Your task to perform on an android device: turn on improve location accuracy Image 0: 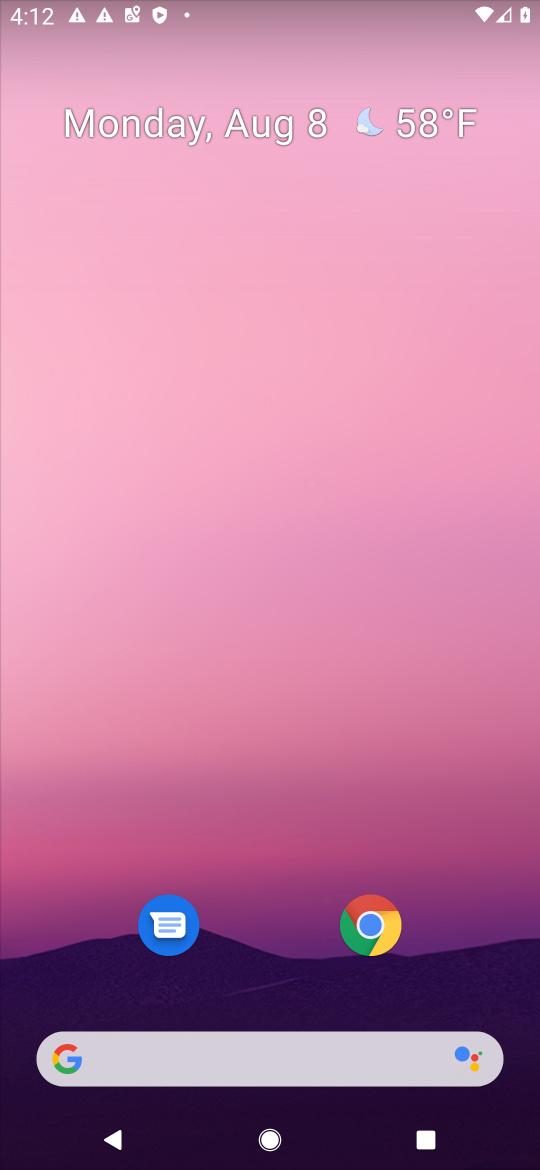
Step 0: drag from (259, 1004) to (241, 149)
Your task to perform on an android device: turn on improve location accuracy Image 1: 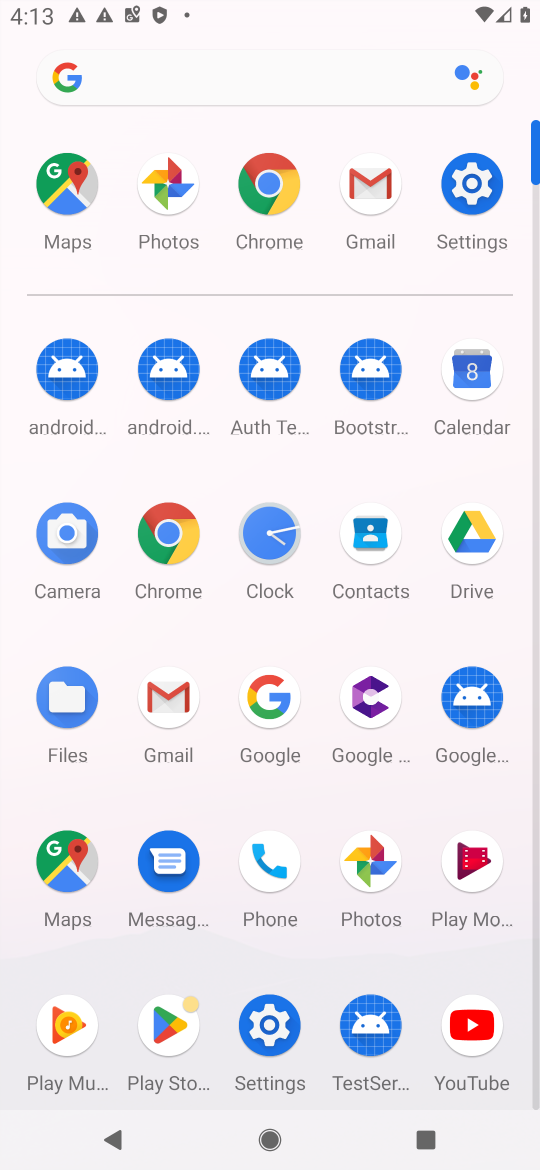
Step 1: click (465, 182)
Your task to perform on an android device: turn on improve location accuracy Image 2: 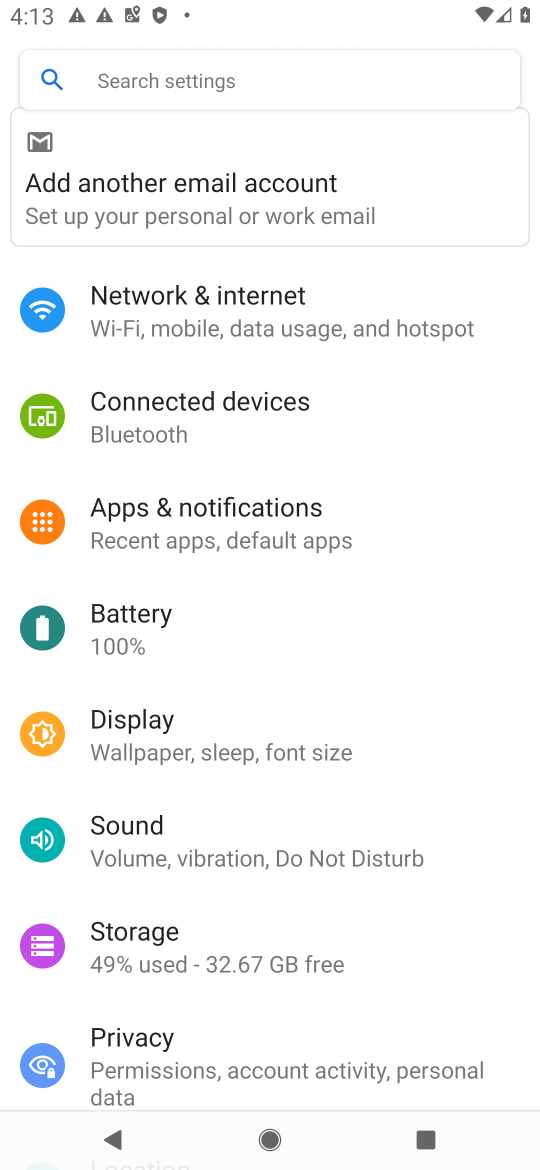
Step 2: drag from (144, 952) to (145, 458)
Your task to perform on an android device: turn on improve location accuracy Image 3: 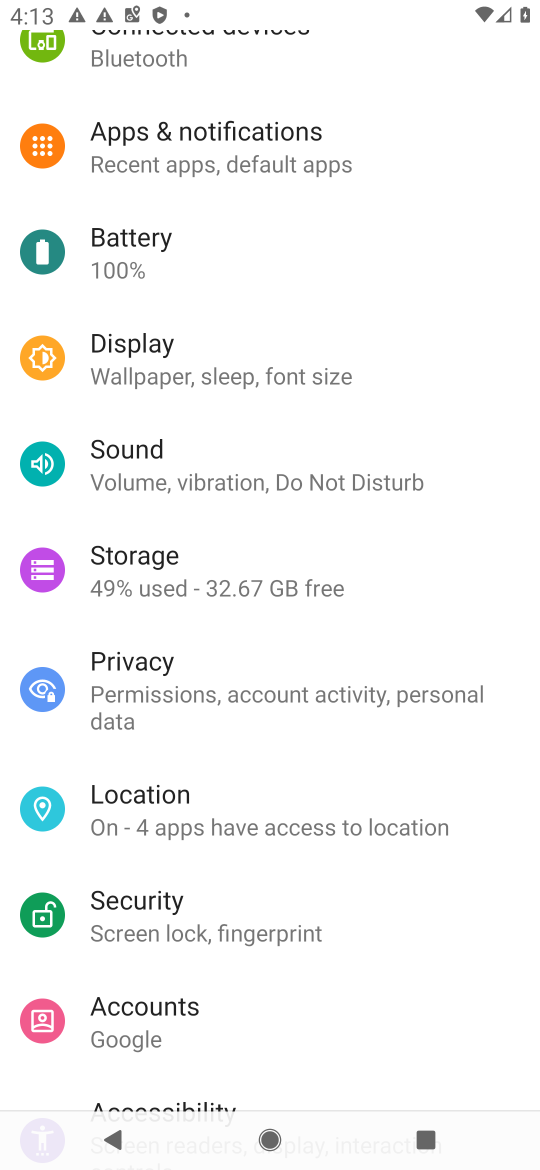
Step 3: click (140, 813)
Your task to perform on an android device: turn on improve location accuracy Image 4: 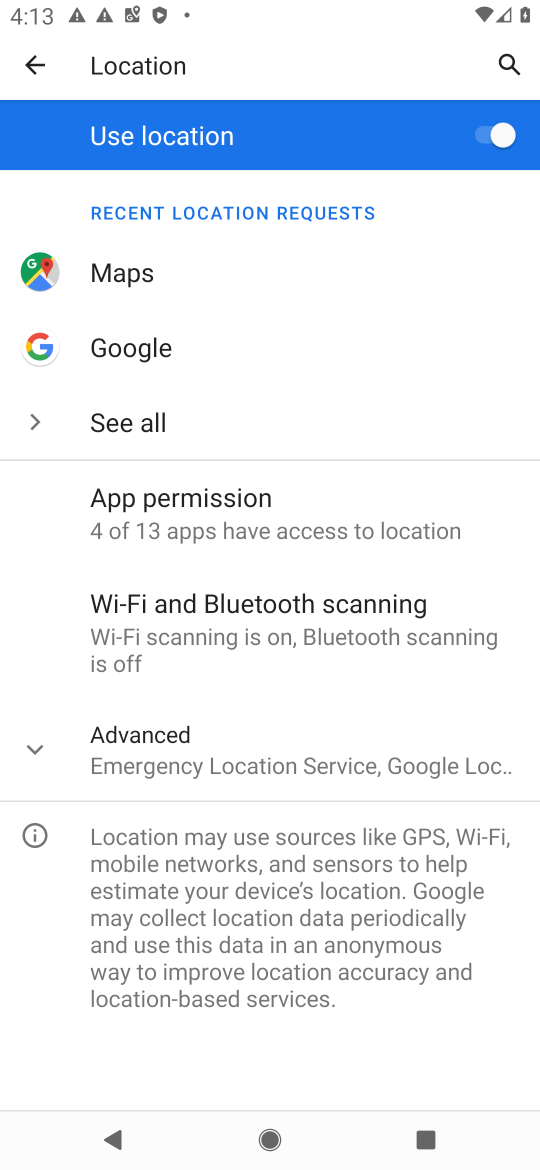
Step 4: click (149, 758)
Your task to perform on an android device: turn on improve location accuracy Image 5: 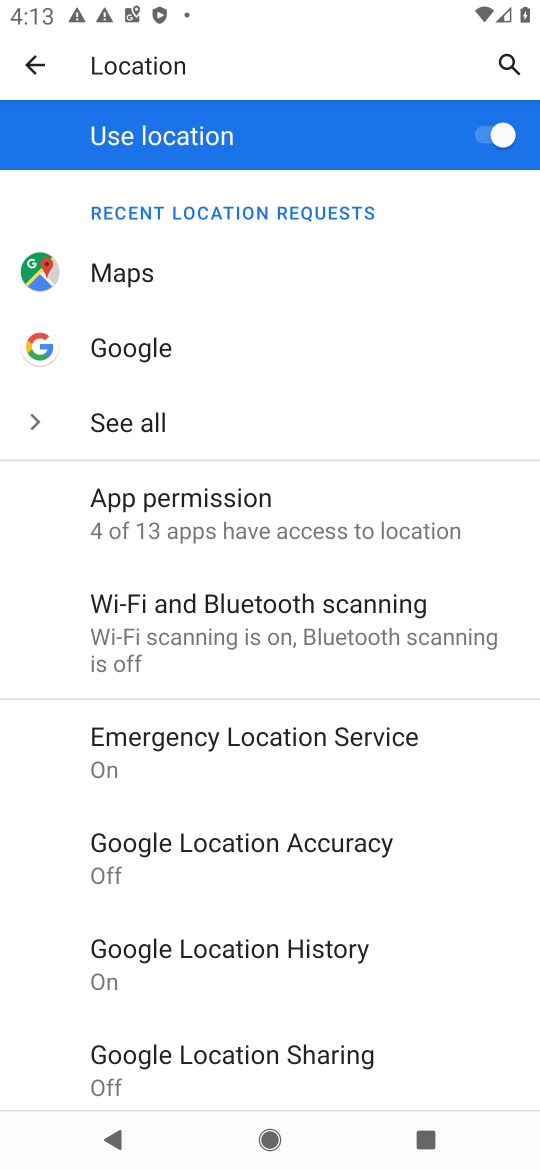
Step 5: click (328, 833)
Your task to perform on an android device: turn on improve location accuracy Image 6: 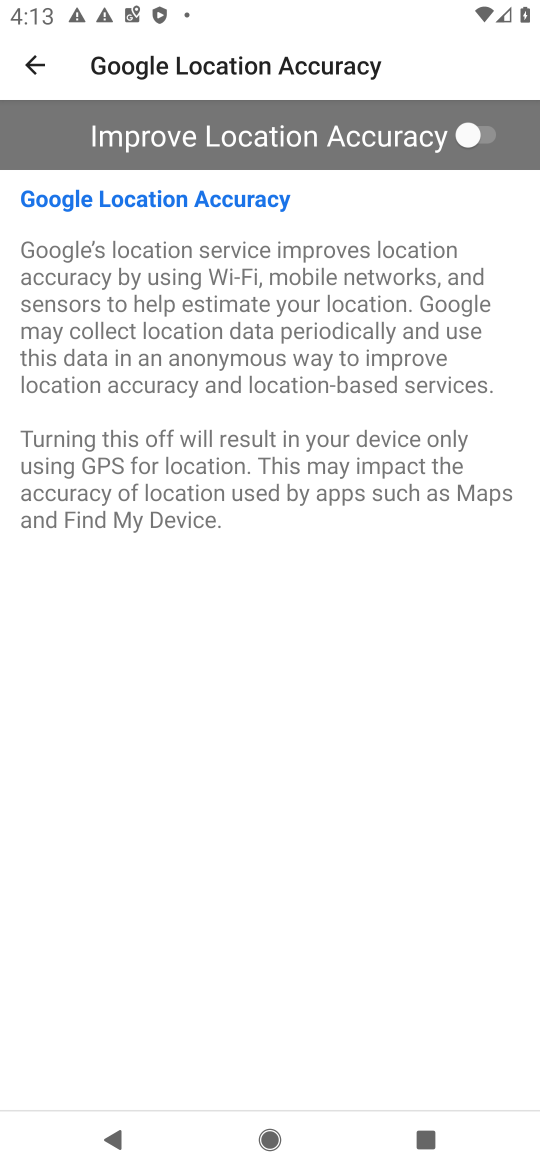
Step 6: click (490, 138)
Your task to perform on an android device: turn on improve location accuracy Image 7: 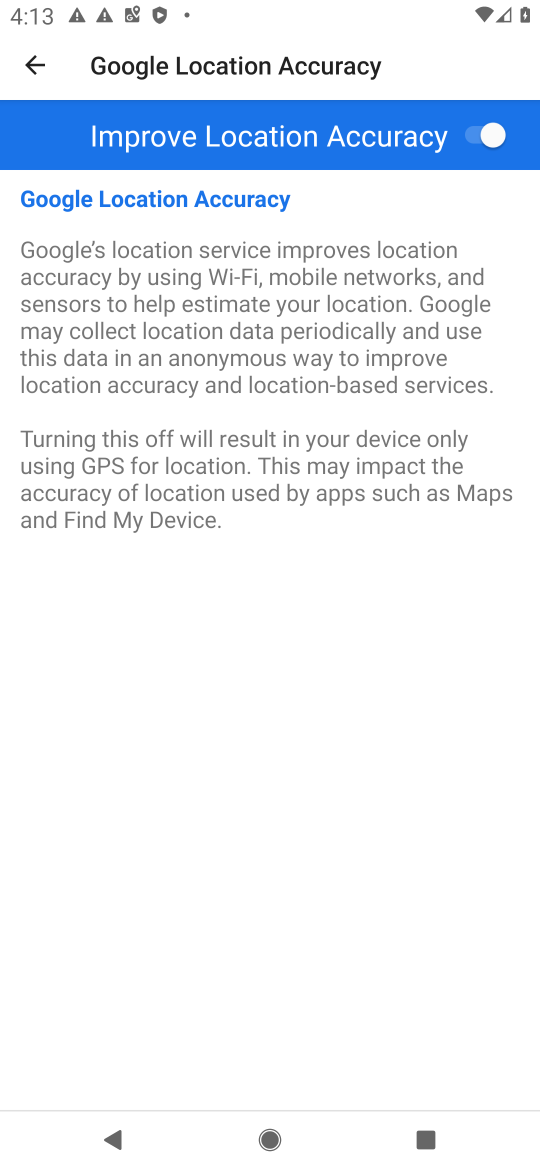
Step 7: task complete